Your task to perform on an android device: Is it going to rain this weekend? Image 0: 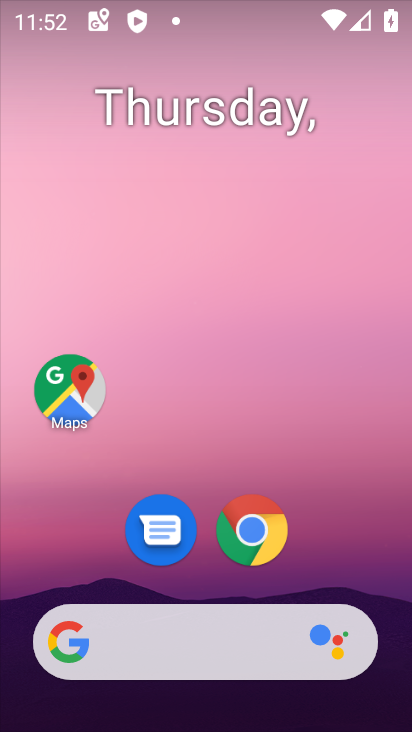
Step 0: drag from (341, 550) to (286, 97)
Your task to perform on an android device: Is it going to rain this weekend? Image 1: 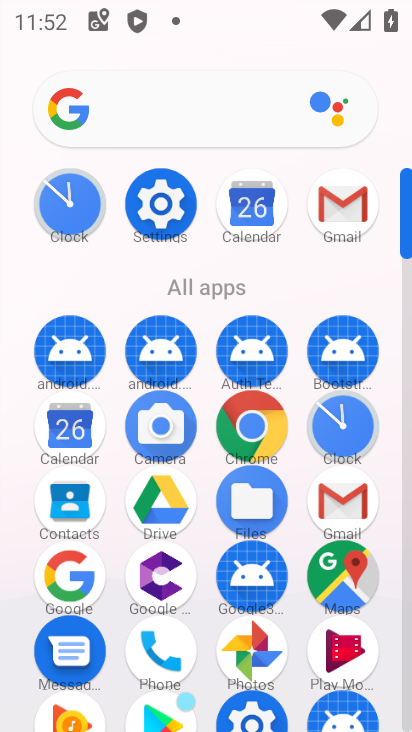
Step 1: click (63, 575)
Your task to perform on an android device: Is it going to rain this weekend? Image 2: 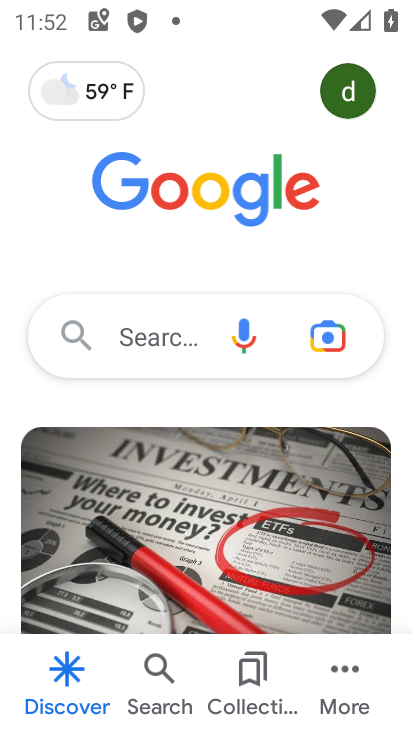
Step 2: click (150, 346)
Your task to perform on an android device: Is it going to rain this weekend? Image 3: 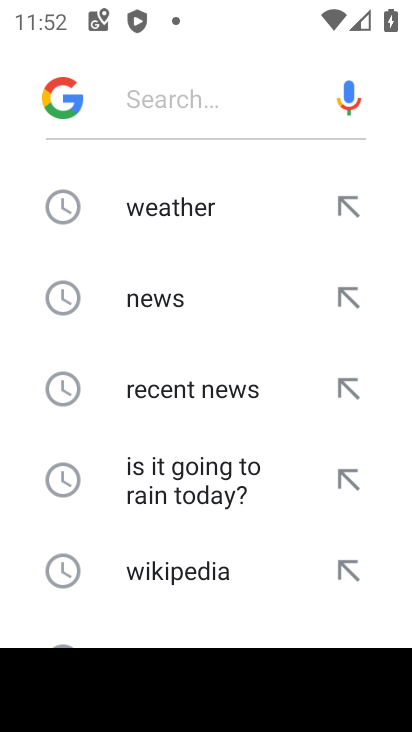
Step 3: type "Is it going to rain this weekend?"
Your task to perform on an android device: Is it going to rain this weekend? Image 4: 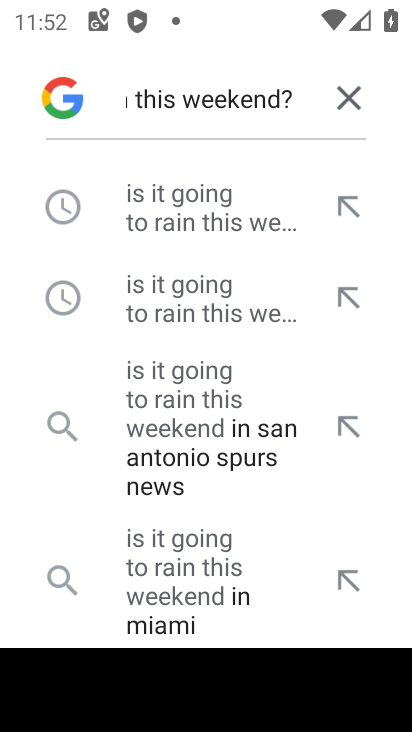
Step 4: click (196, 224)
Your task to perform on an android device: Is it going to rain this weekend? Image 5: 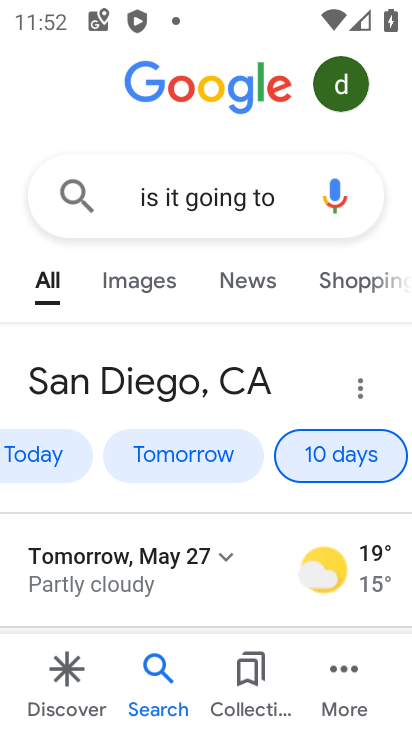
Step 5: task complete